Your task to perform on an android device: check the backup settings in the google photos Image 0: 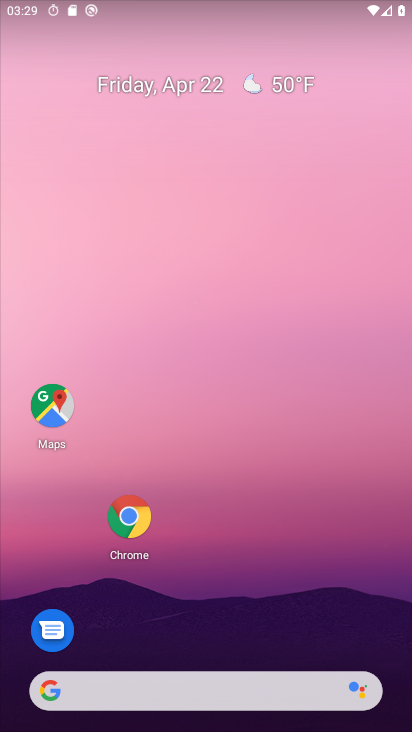
Step 0: click (330, 209)
Your task to perform on an android device: check the backup settings in the google photos Image 1: 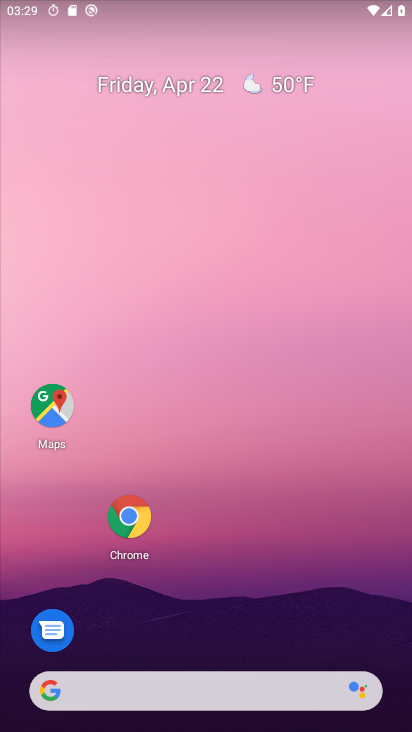
Step 1: drag from (355, 395) to (344, 218)
Your task to perform on an android device: check the backup settings in the google photos Image 2: 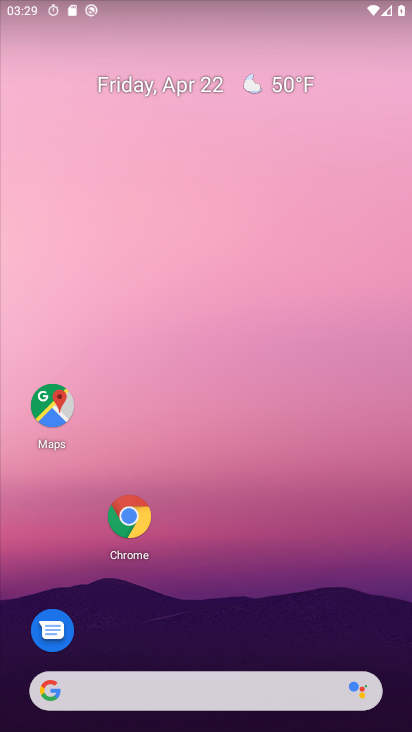
Step 2: drag from (385, 629) to (373, 188)
Your task to perform on an android device: check the backup settings in the google photos Image 3: 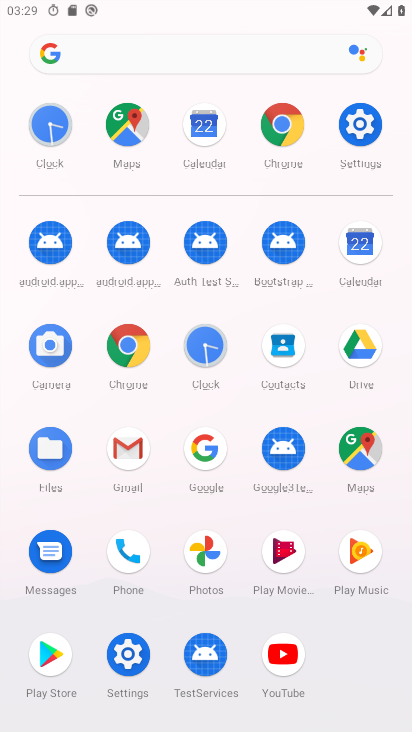
Step 3: click (208, 547)
Your task to perform on an android device: check the backup settings in the google photos Image 4: 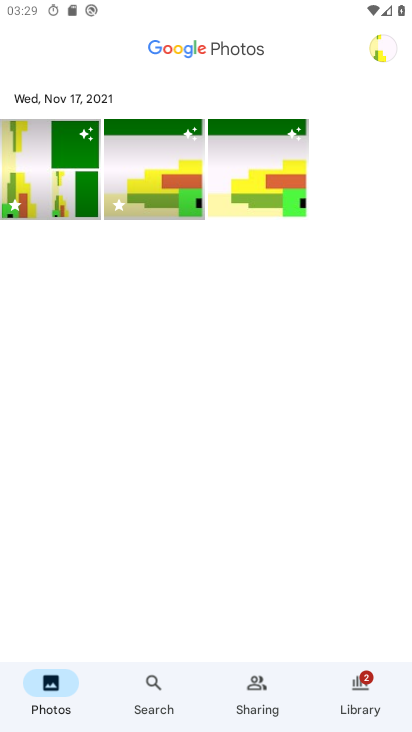
Step 4: press back button
Your task to perform on an android device: check the backup settings in the google photos Image 5: 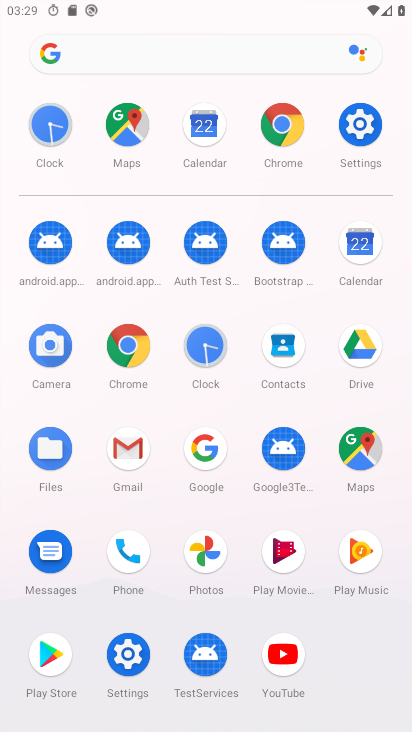
Step 5: click (194, 553)
Your task to perform on an android device: check the backup settings in the google photos Image 6: 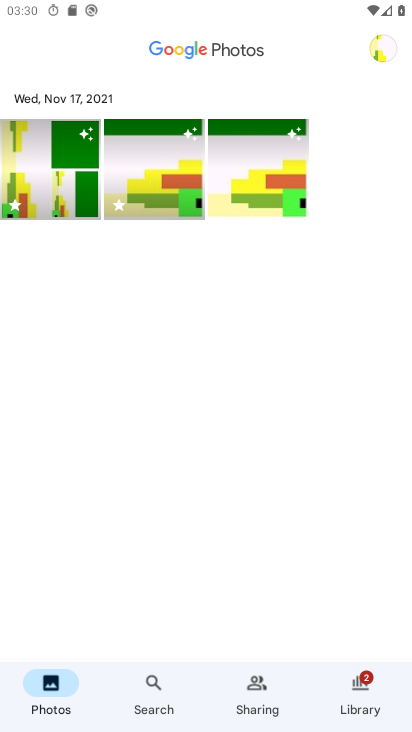
Step 6: click (381, 49)
Your task to perform on an android device: check the backup settings in the google photos Image 7: 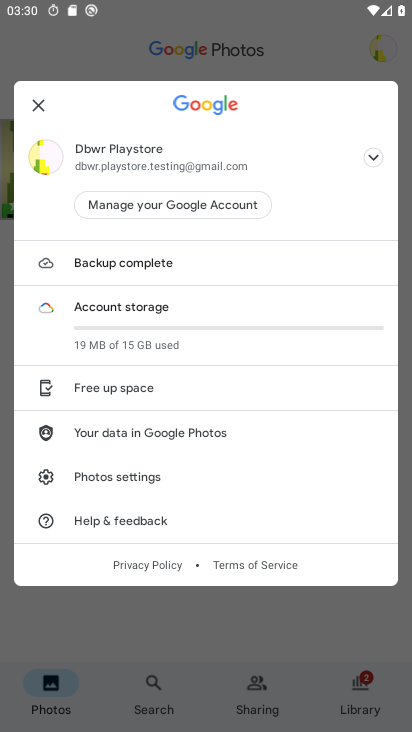
Step 7: click (112, 254)
Your task to perform on an android device: check the backup settings in the google photos Image 8: 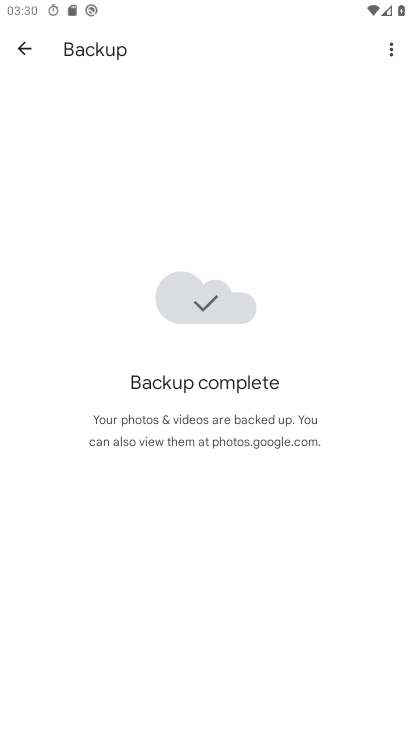
Step 8: click (173, 387)
Your task to perform on an android device: check the backup settings in the google photos Image 9: 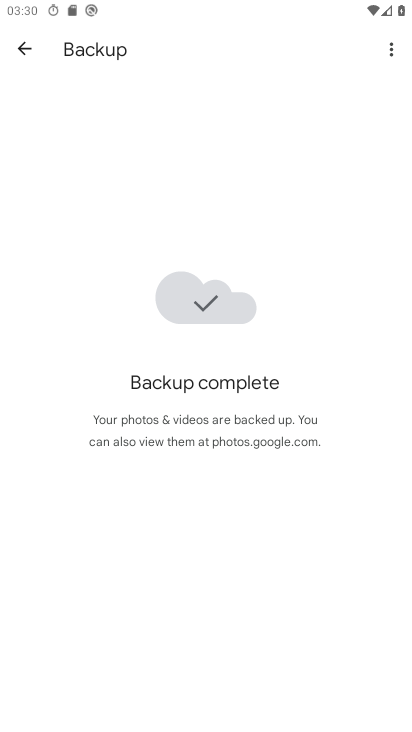
Step 9: click (183, 305)
Your task to perform on an android device: check the backup settings in the google photos Image 10: 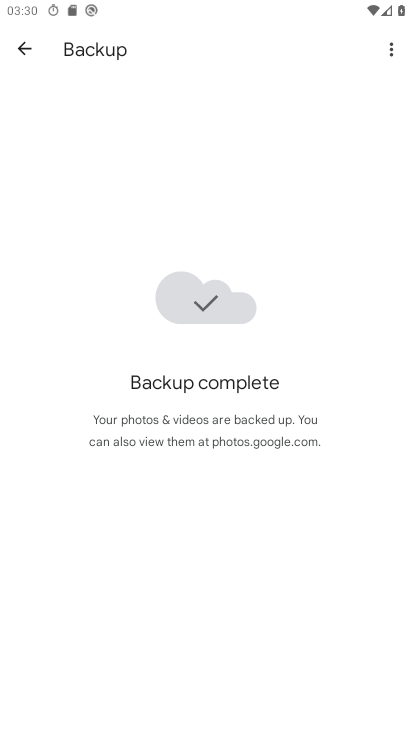
Step 10: click (170, 395)
Your task to perform on an android device: check the backup settings in the google photos Image 11: 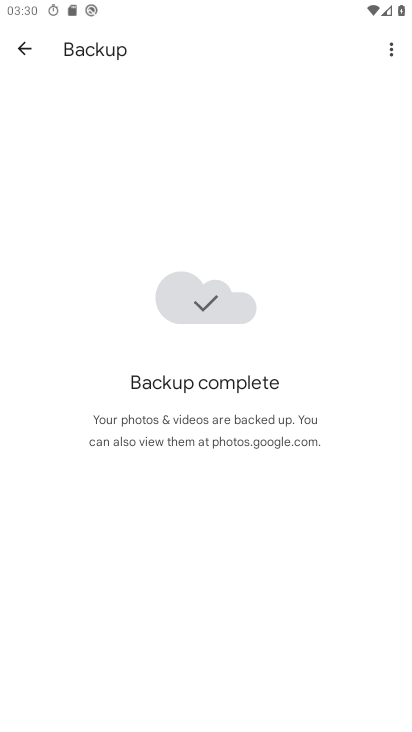
Step 11: task complete